Your task to perform on an android device: Go to battery settings Image 0: 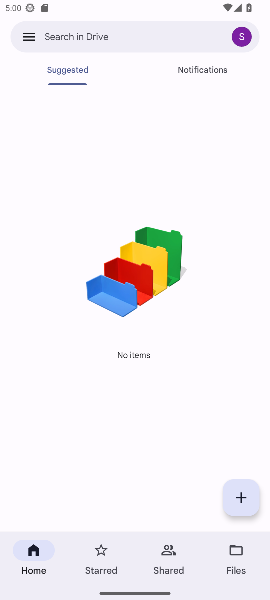
Step 0: press home button
Your task to perform on an android device: Go to battery settings Image 1: 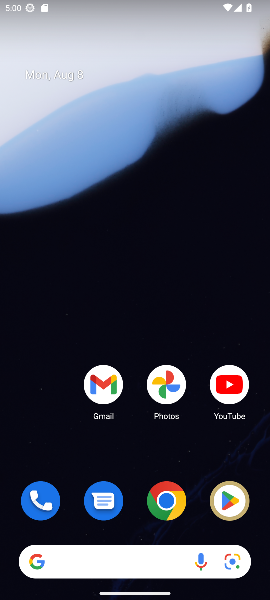
Step 1: drag from (9, 558) to (184, 139)
Your task to perform on an android device: Go to battery settings Image 2: 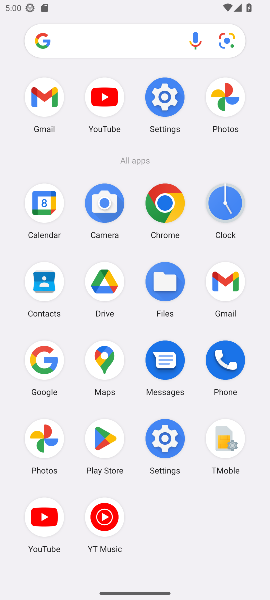
Step 2: click (162, 449)
Your task to perform on an android device: Go to battery settings Image 3: 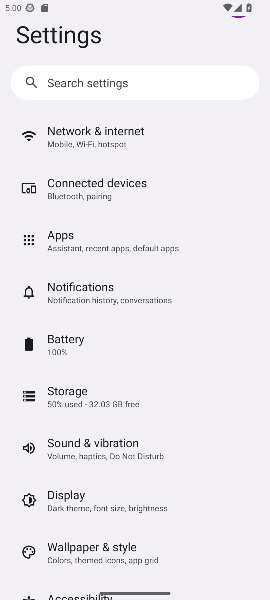
Step 3: click (86, 343)
Your task to perform on an android device: Go to battery settings Image 4: 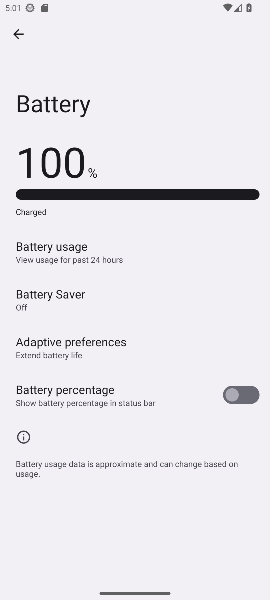
Step 4: task complete